Your task to perform on an android device: Go to sound settings Image 0: 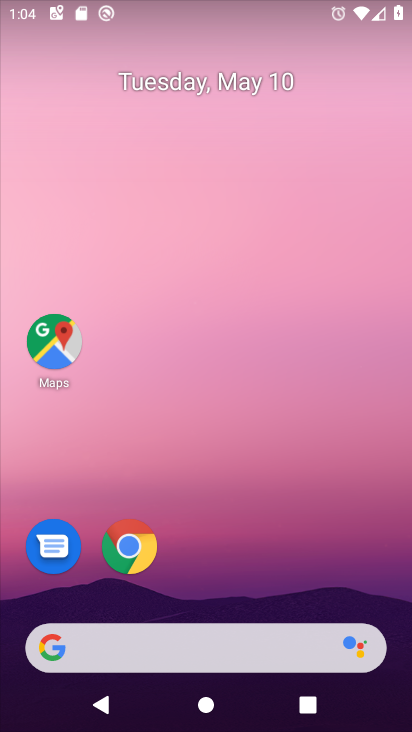
Step 0: press home button
Your task to perform on an android device: Go to sound settings Image 1: 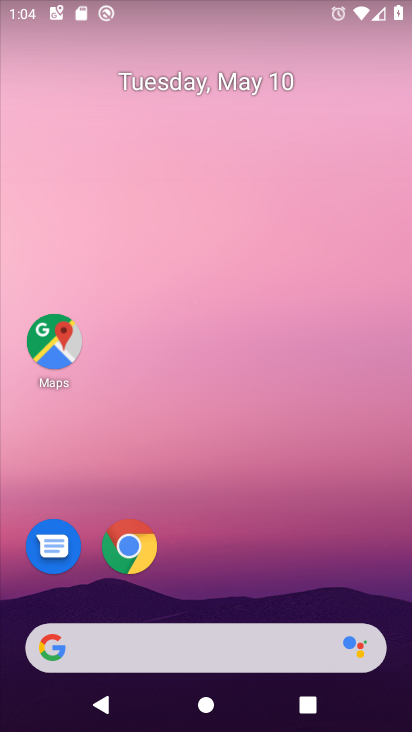
Step 1: drag from (352, 558) to (406, 255)
Your task to perform on an android device: Go to sound settings Image 2: 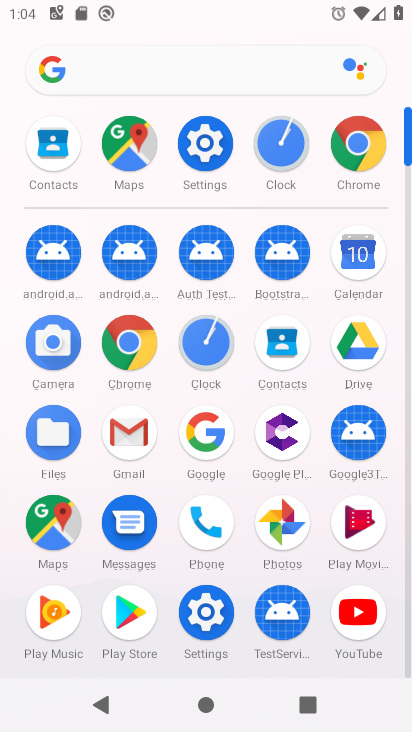
Step 2: click (197, 145)
Your task to perform on an android device: Go to sound settings Image 3: 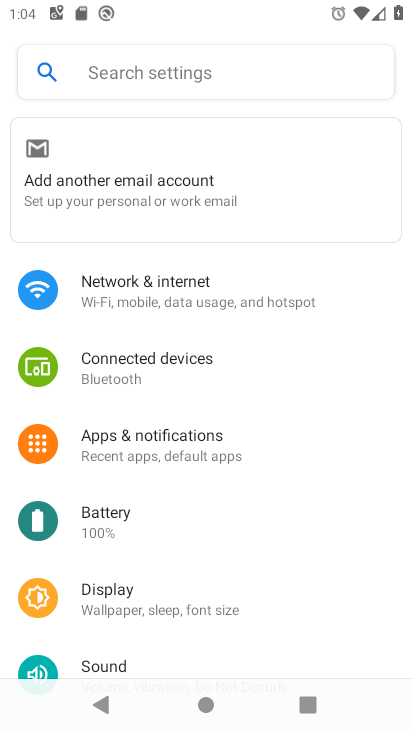
Step 3: drag from (280, 611) to (274, 432)
Your task to perform on an android device: Go to sound settings Image 4: 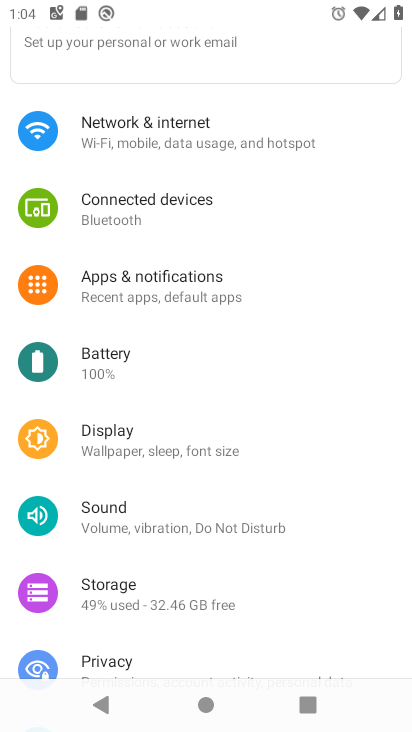
Step 4: click (220, 526)
Your task to perform on an android device: Go to sound settings Image 5: 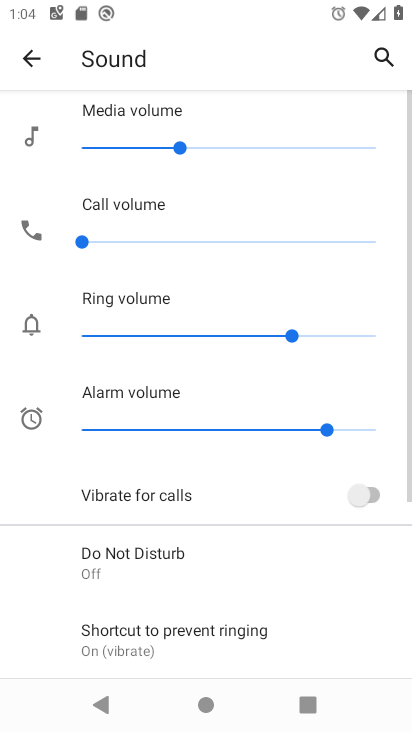
Step 5: task complete